Your task to perform on an android device: Go to battery settings Image 0: 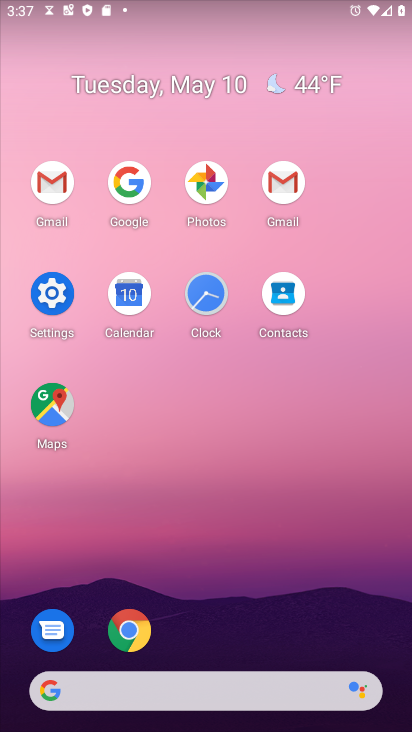
Step 0: click (67, 288)
Your task to perform on an android device: Go to battery settings Image 1: 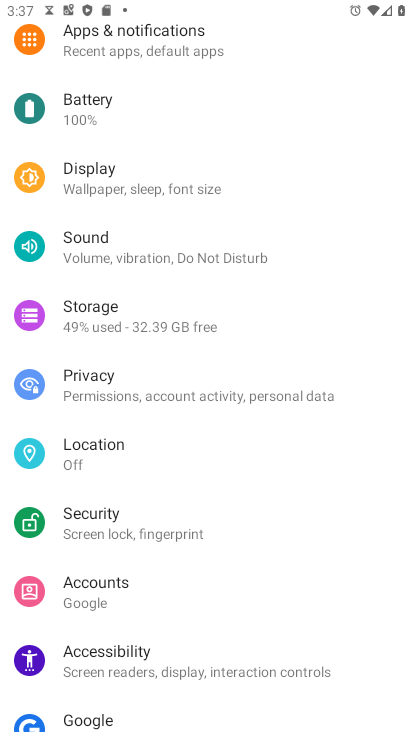
Step 1: click (95, 94)
Your task to perform on an android device: Go to battery settings Image 2: 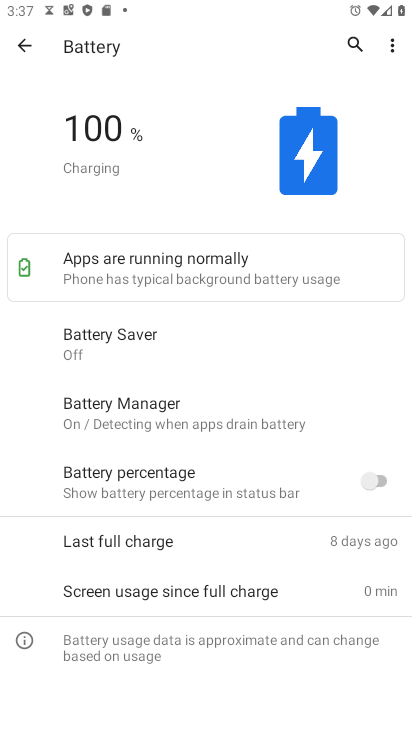
Step 2: click (400, 51)
Your task to perform on an android device: Go to battery settings Image 3: 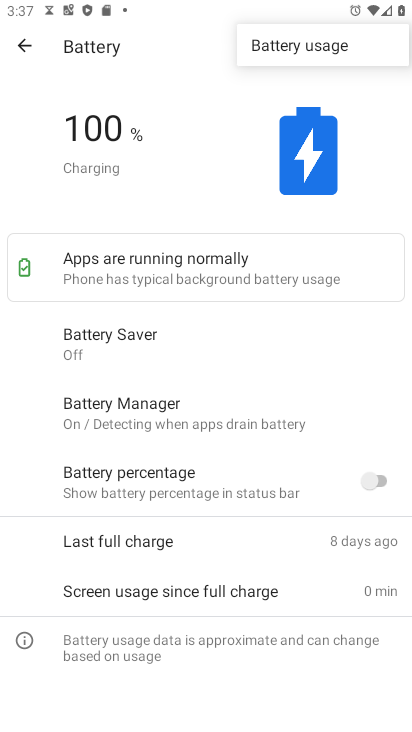
Step 3: click (295, 36)
Your task to perform on an android device: Go to battery settings Image 4: 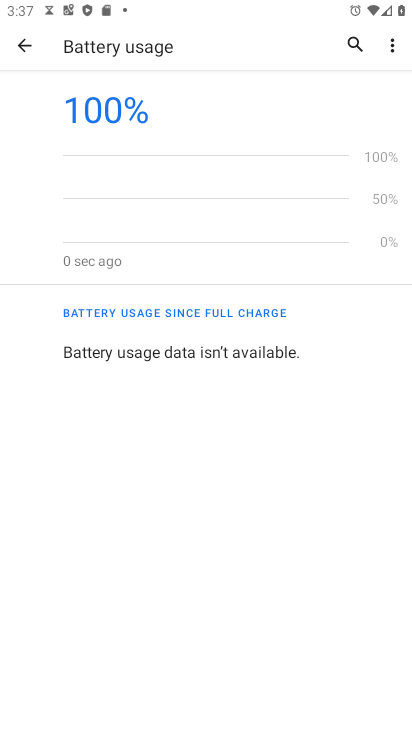
Step 4: task complete